Your task to perform on an android device: Open the camera Image 0: 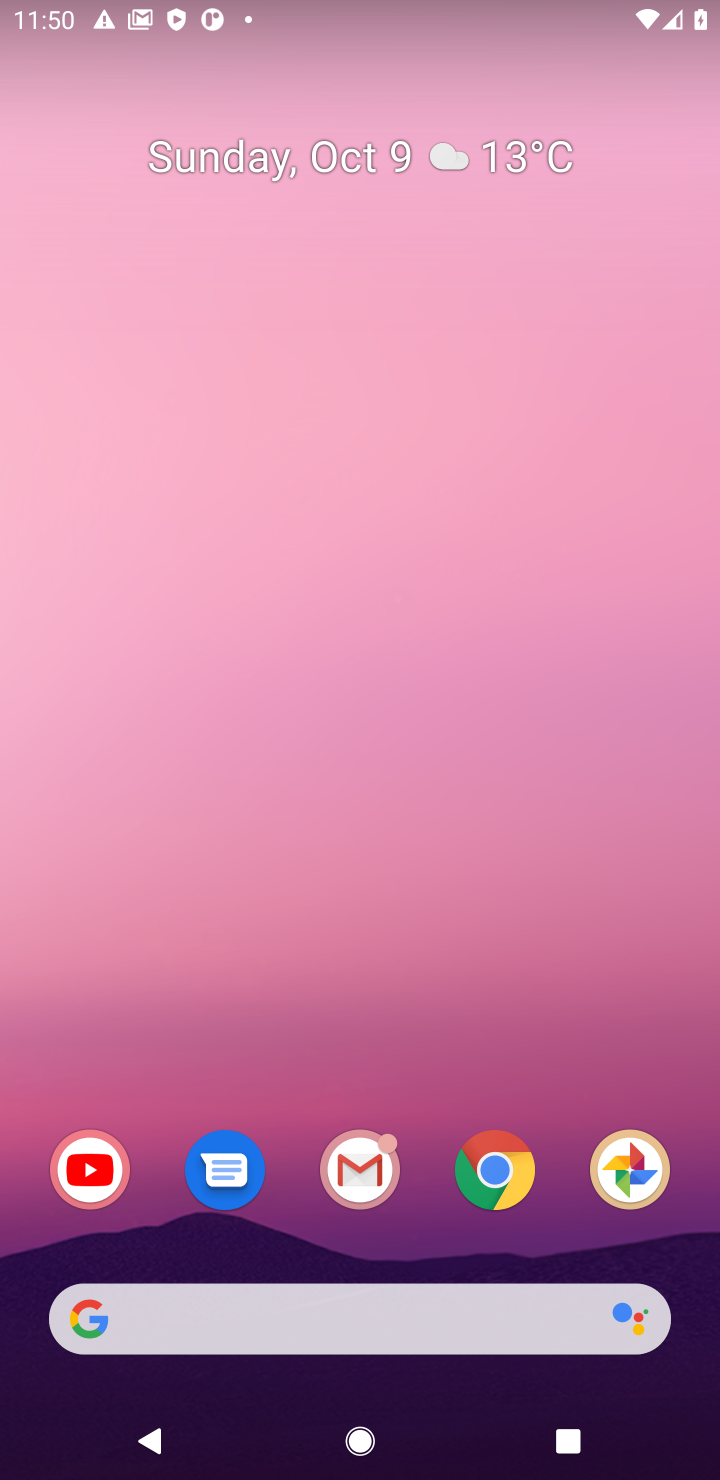
Step 0: drag from (326, 1316) to (187, 474)
Your task to perform on an android device: Open the camera Image 1: 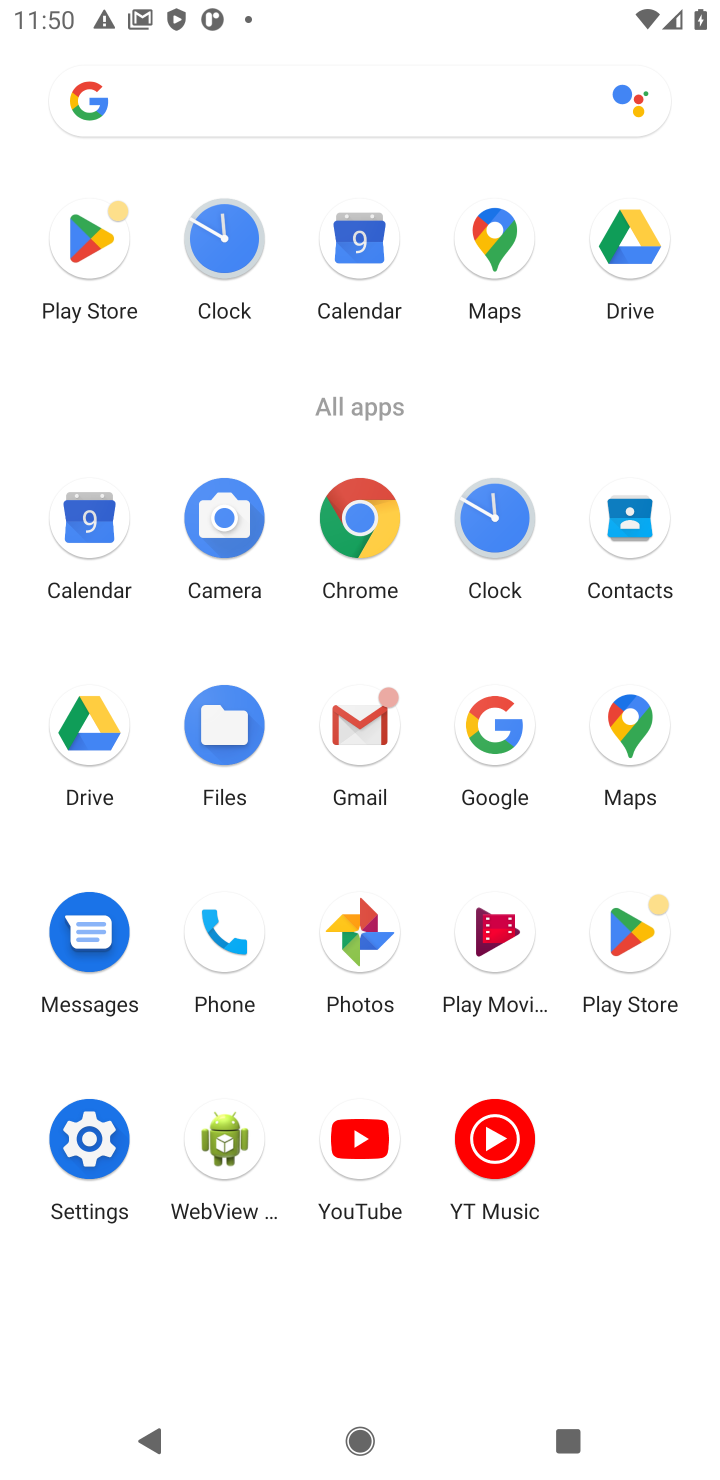
Step 1: click (224, 521)
Your task to perform on an android device: Open the camera Image 2: 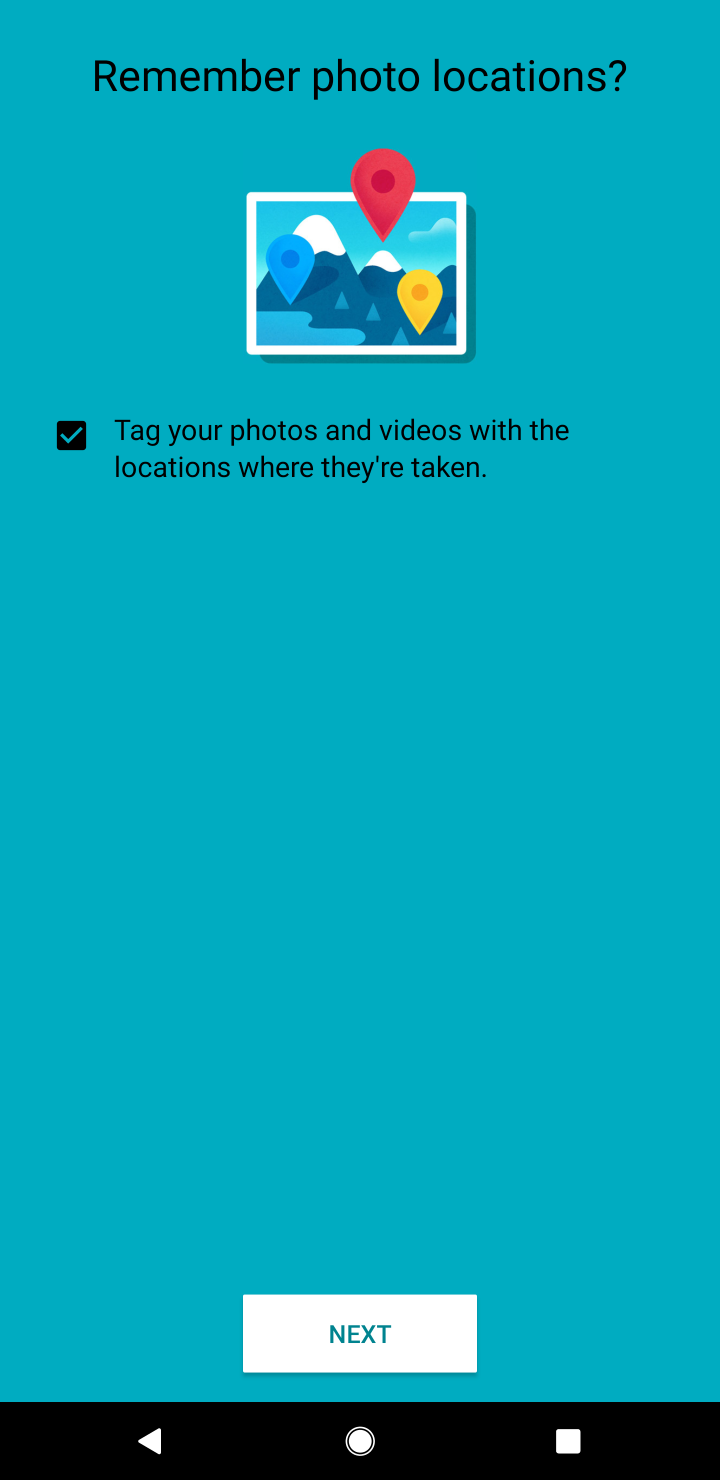
Step 2: click (362, 1334)
Your task to perform on an android device: Open the camera Image 3: 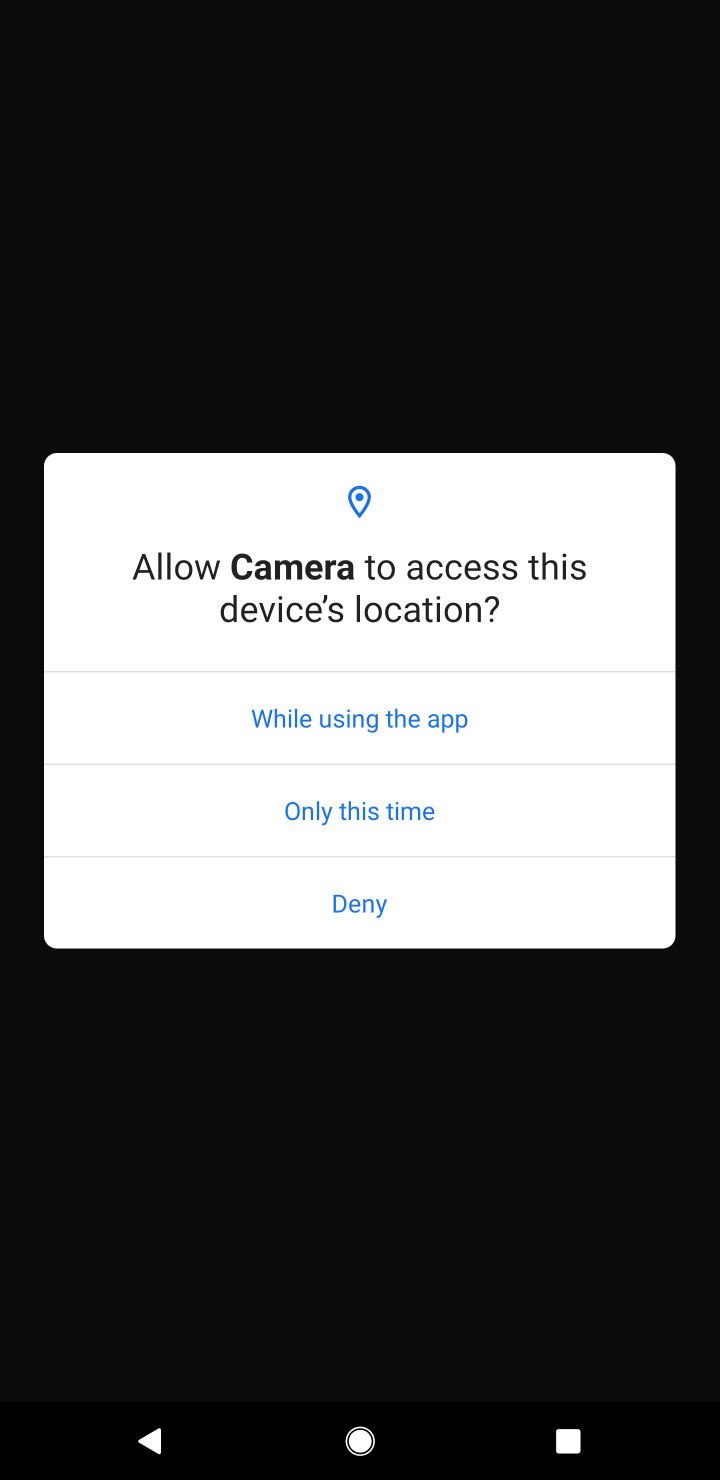
Step 3: click (370, 731)
Your task to perform on an android device: Open the camera Image 4: 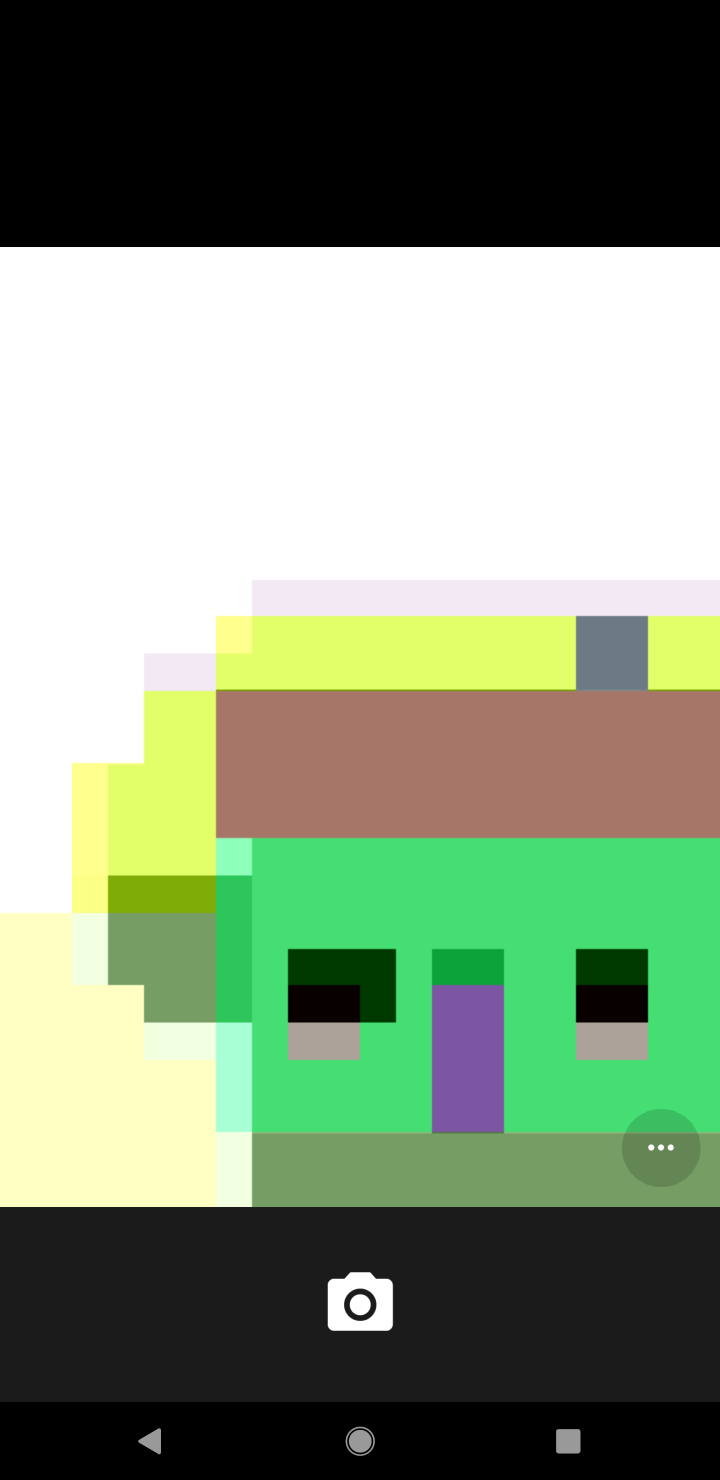
Step 4: task complete